Your task to perform on an android device: Go to location settings Image 0: 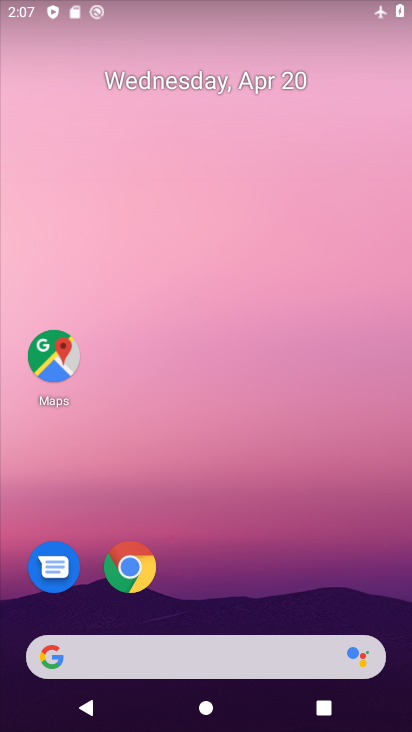
Step 0: drag from (152, 659) to (122, 27)
Your task to perform on an android device: Go to location settings Image 1: 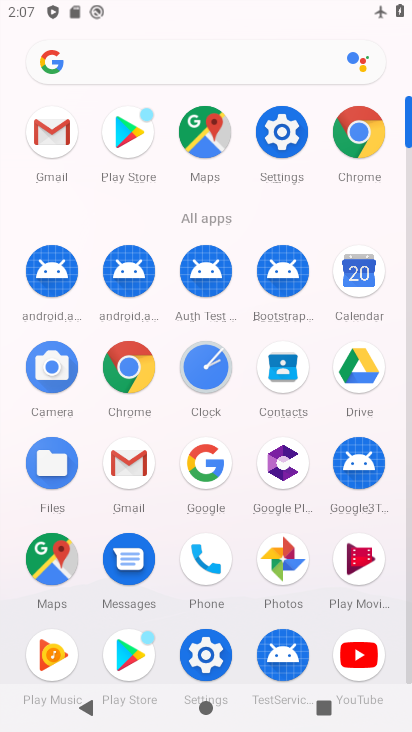
Step 1: click (206, 633)
Your task to perform on an android device: Go to location settings Image 2: 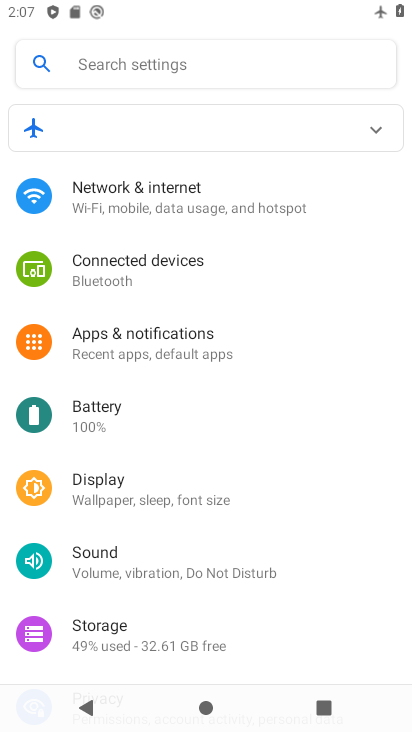
Step 2: drag from (135, 577) to (142, 210)
Your task to perform on an android device: Go to location settings Image 3: 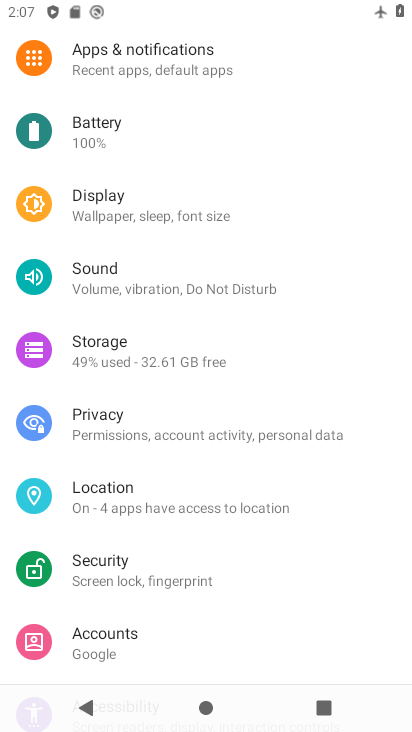
Step 3: click (121, 493)
Your task to perform on an android device: Go to location settings Image 4: 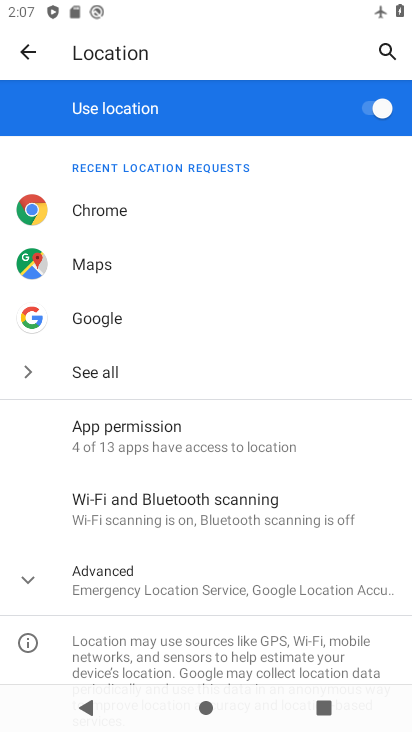
Step 4: task complete